Your task to perform on an android device: Open Google Maps and go to "Timeline" Image 0: 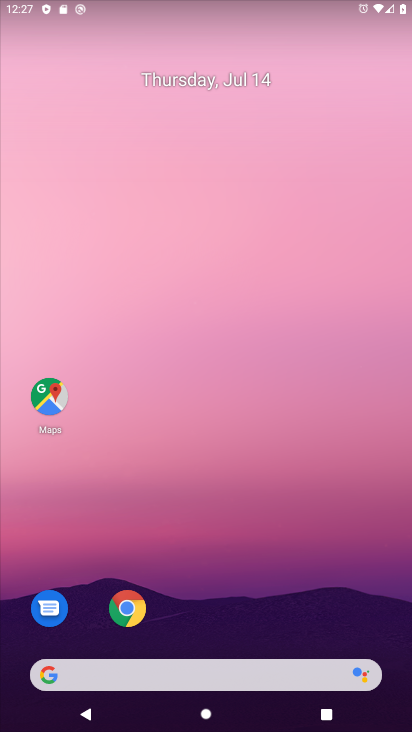
Step 0: drag from (183, 674) to (210, 225)
Your task to perform on an android device: Open Google Maps and go to "Timeline" Image 1: 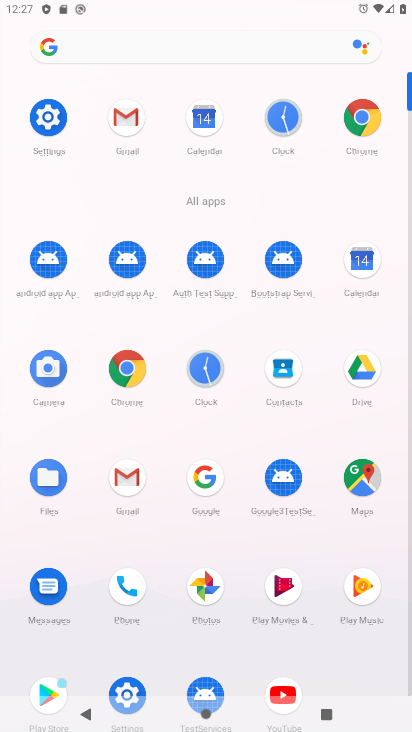
Step 1: click (362, 475)
Your task to perform on an android device: Open Google Maps and go to "Timeline" Image 2: 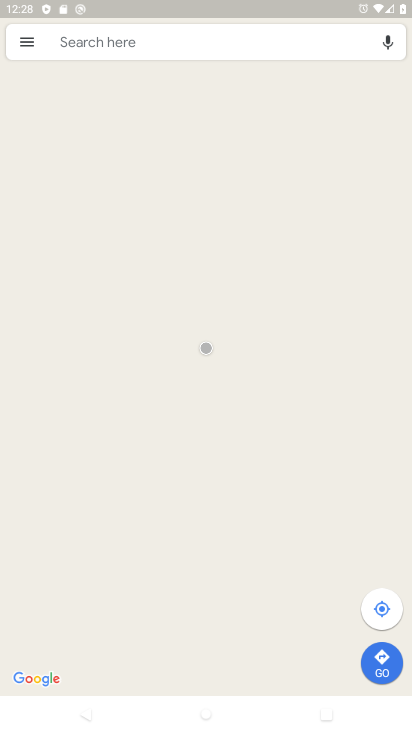
Step 2: click (28, 42)
Your task to perform on an android device: Open Google Maps and go to "Timeline" Image 3: 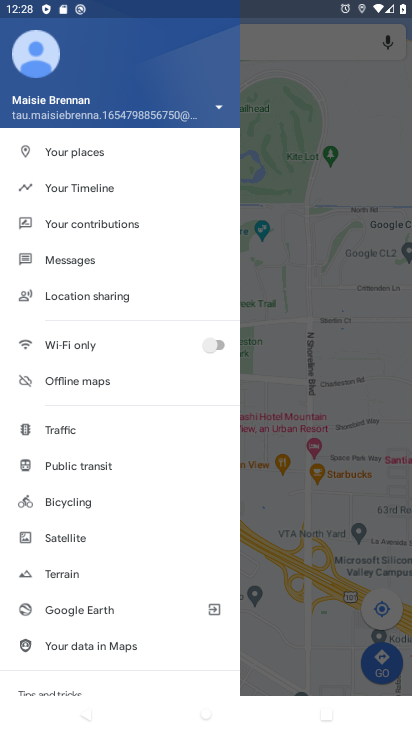
Step 3: click (87, 192)
Your task to perform on an android device: Open Google Maps and go to "Timeline" Image 4: 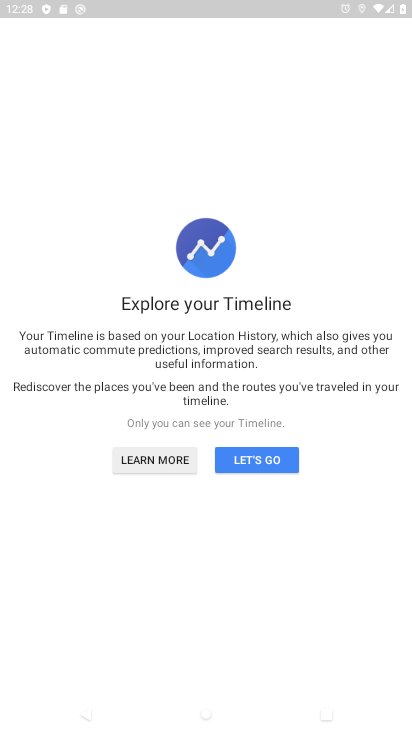
Step 4: click (242, 450)
Your task to perform on an android device: Open Google Maps and go to "Timeline" Image 5: 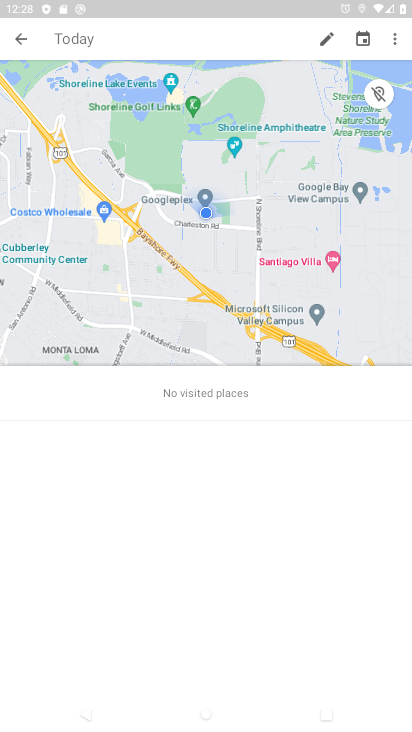
Step 5: task complete